Your task to perform on an android device: Open Maps and search for coffee Image 0: 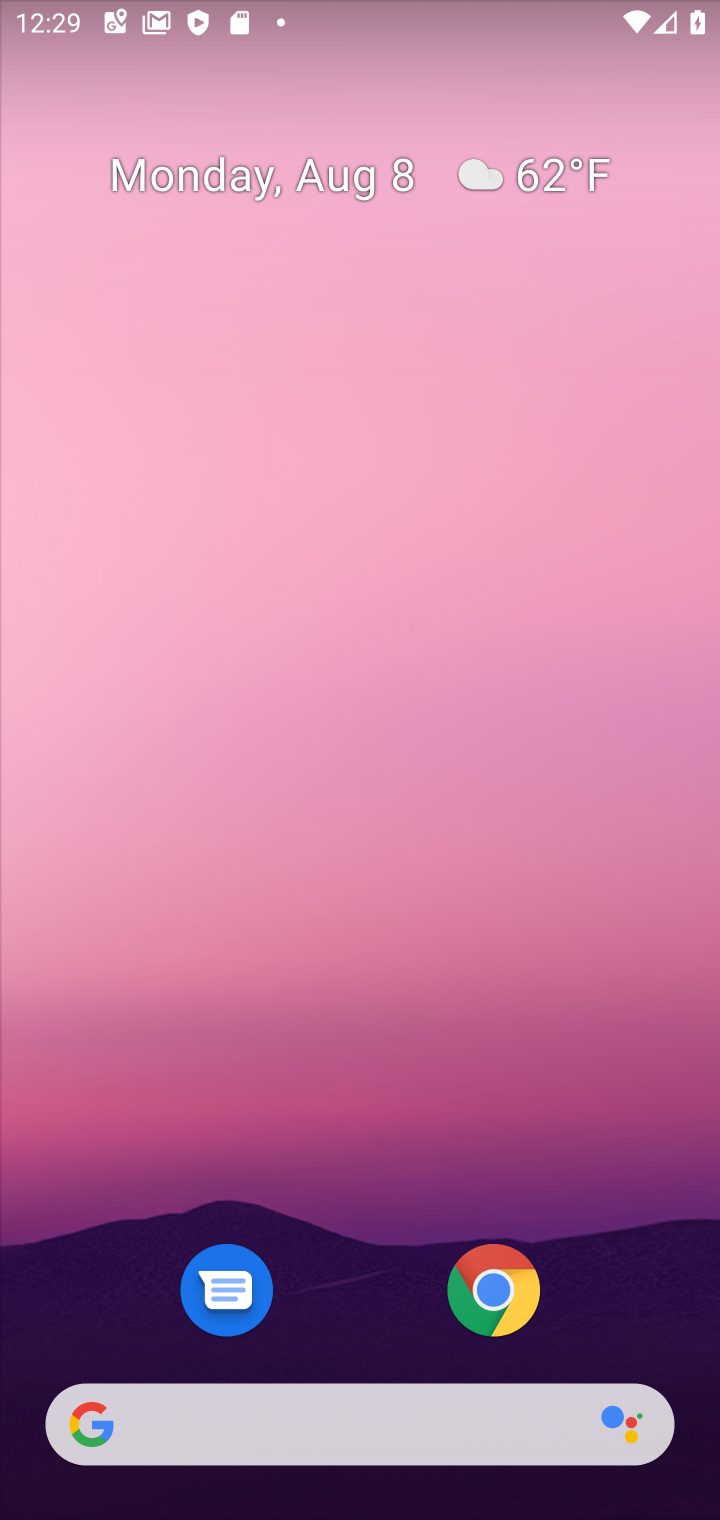
Step 0: drag from (367, 1148) to (415, 19)
Your task to perform on an android device: Open Maps and search for coffee Image 1: 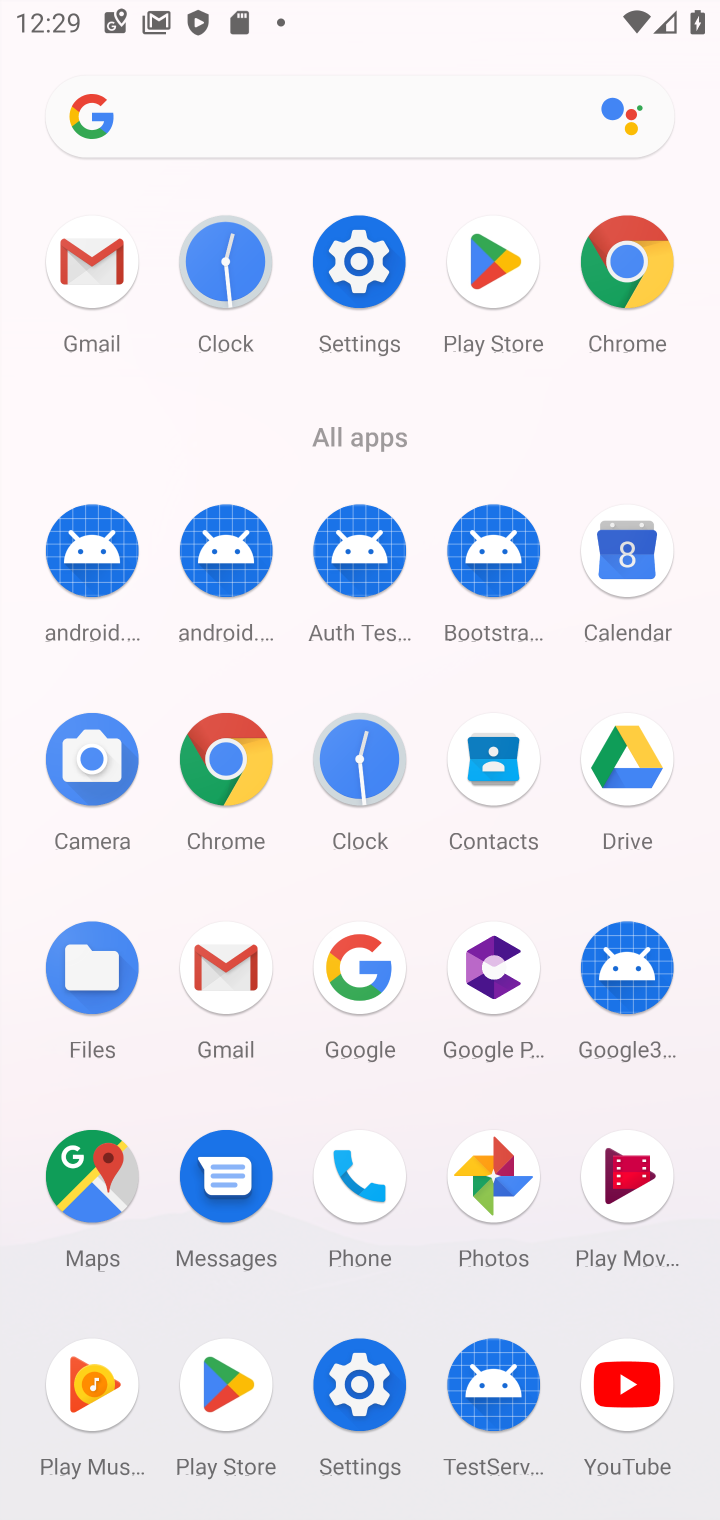
Step 1: click (84, 1170)
Your task to perform on an android device: Open Maps and search for coffee Image 2: 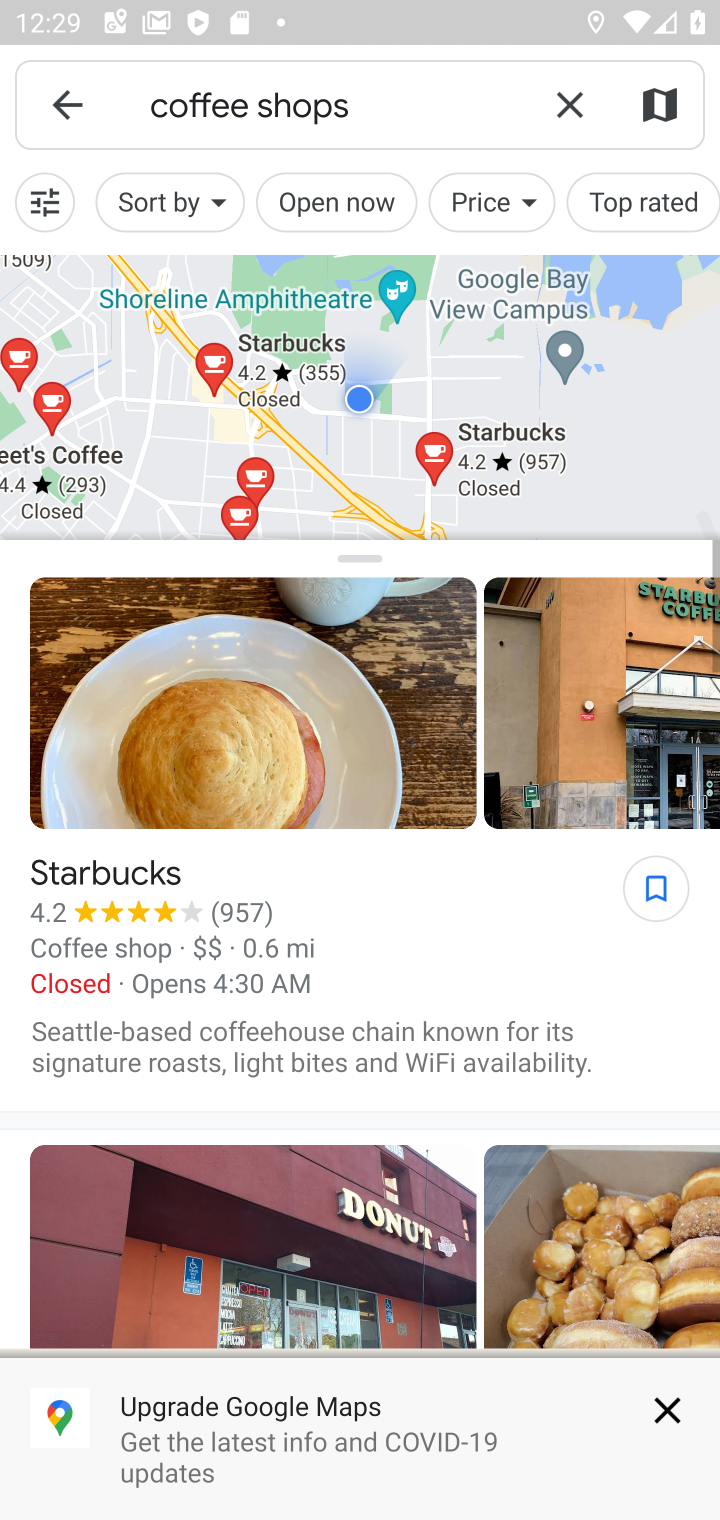
Step 2: task complete